Your task to perform on an android device: When is my next appointment? Image 0: 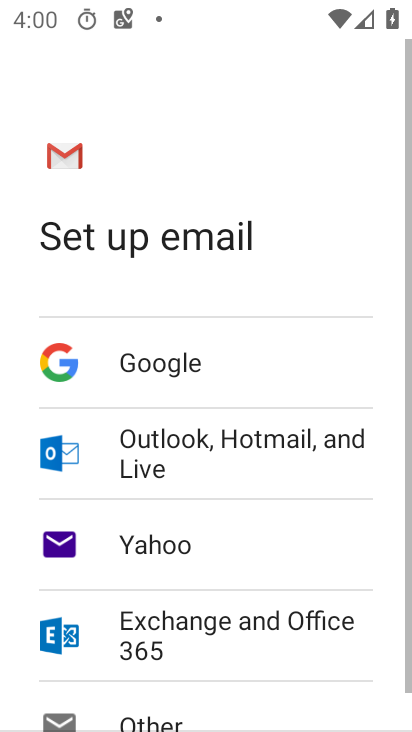
Step 0: press home button
Your task to perform on an android device: When is my next appointment? Image 1: 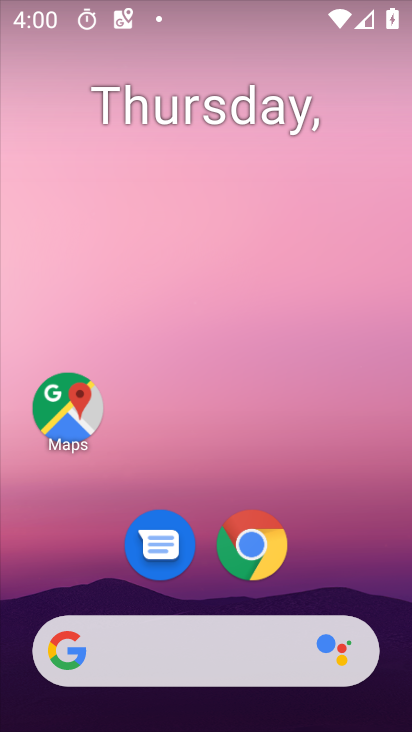
Step 1: drag from (216, 718) to (214, 167)
Your task to perform on an android device: When is my next appointment? Image 2: 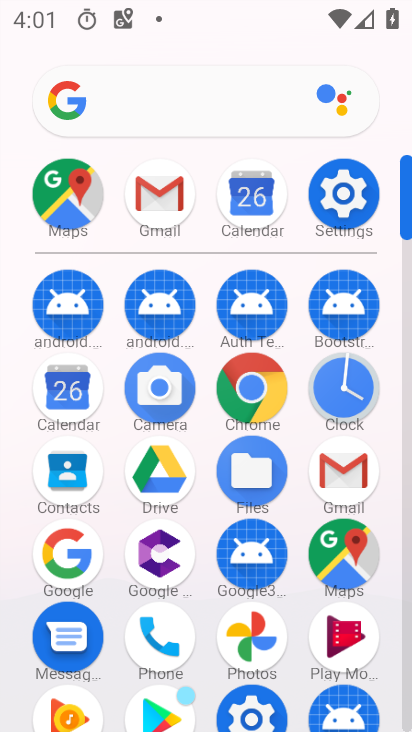
Step 2: click (64, 406)
Your task to perform on an android device: When is my next appointment? Image 3: 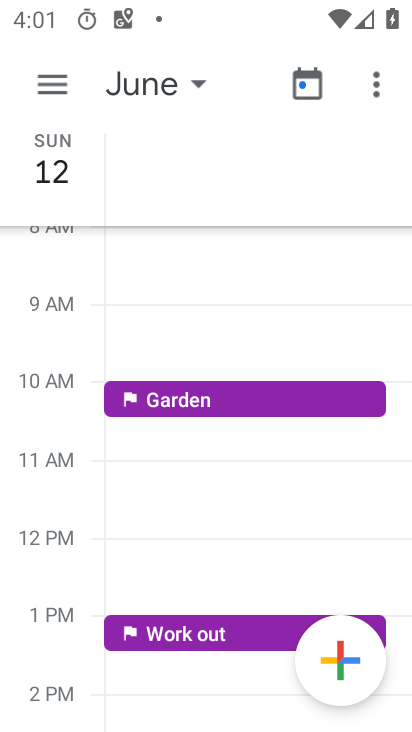
Step 3: click (179, 81)
Your task to perform on an android device: When is my next appointment? Image 4: 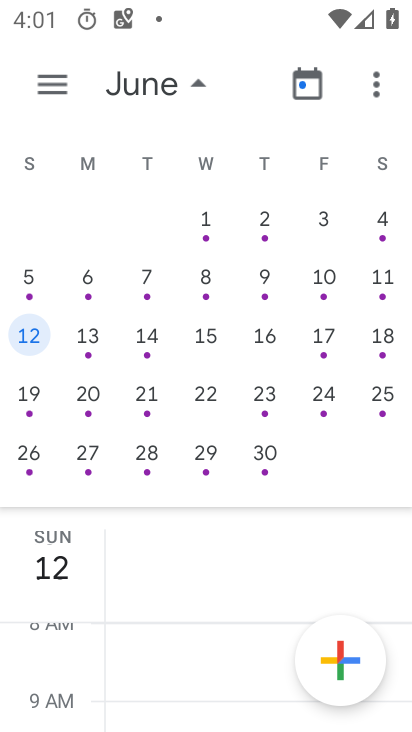
Step 4: drag from (47, 312) to (390, 329)
Your task to perform on an android device: When is my next appointment? Image 5: 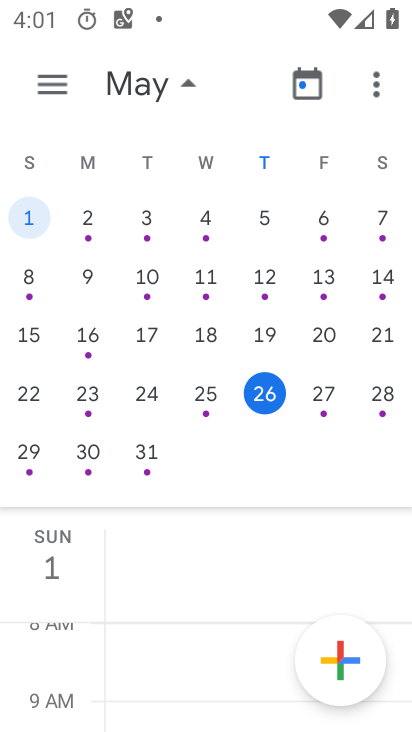
Step 5: click (320, 389)
Your task to perform on an android device: When is my next appointment? Image 6: 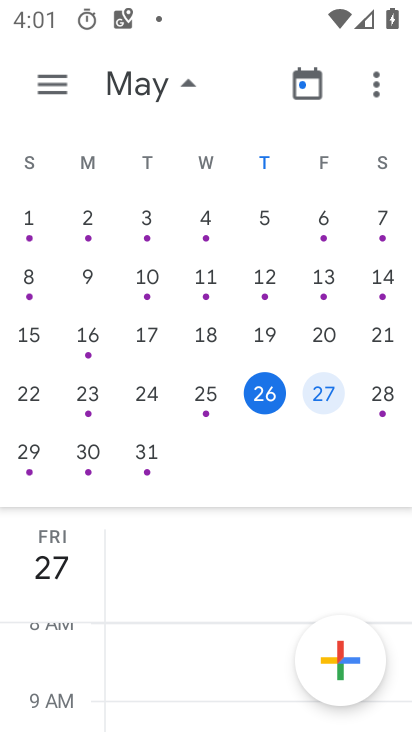
Step 6: click (318, 388)
Your task to perform on an android device: When is my next appointment? Image 7: 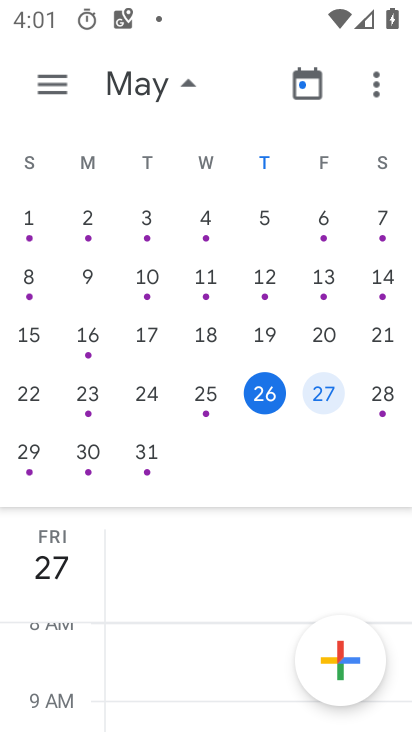
Step 7: click (185, 76)
Your task to perform on an android device: When is my next appointment? Image 8: 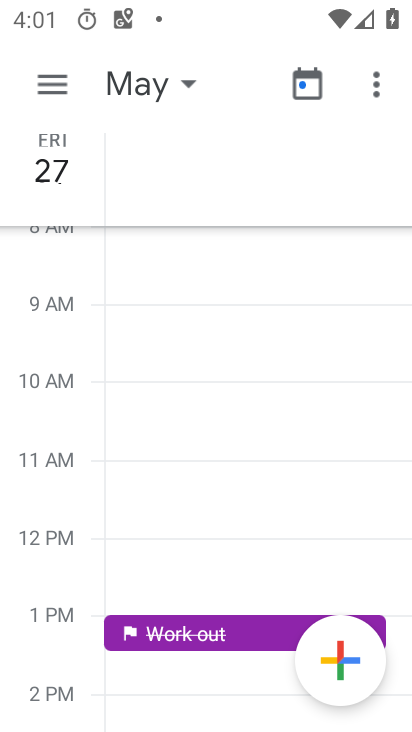
Step 8: task complete